Your task to perform on an android device: Is it going to rain tomorrow? Image 0: 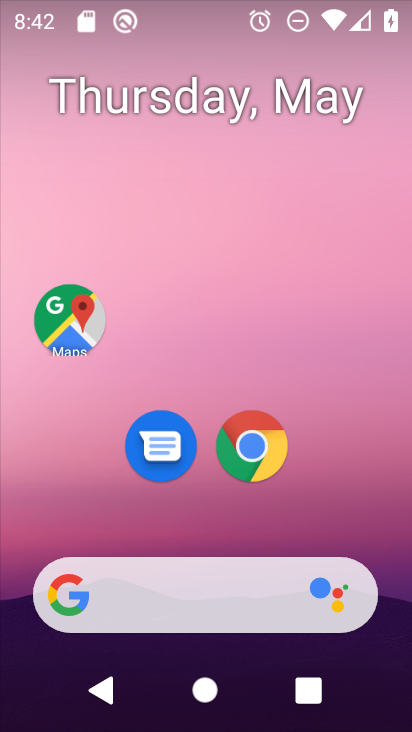
Step 0: drag from (386, 501) to (352, 120)
Your task to perform on an android device: Is it going to rain tomorrow? Image 1: 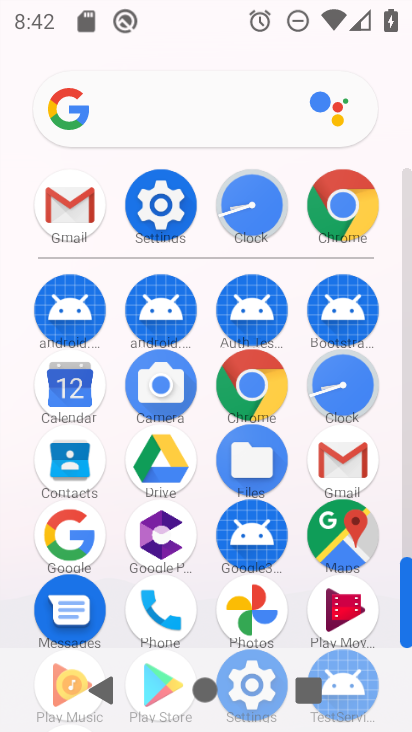
Step 1: click (355, 204)
Your task to perform on an android device: Is it going to rain tomorrow? Image 2: 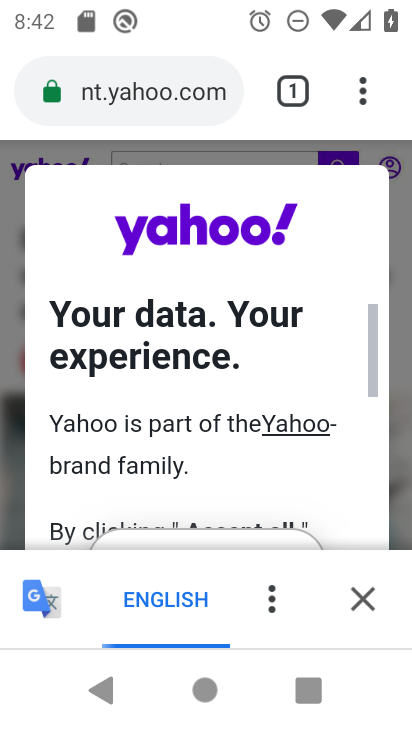
Step 2: click (366, 610)
Your task to perform on an android device: Is it going to rain tomorrow? Image 3: 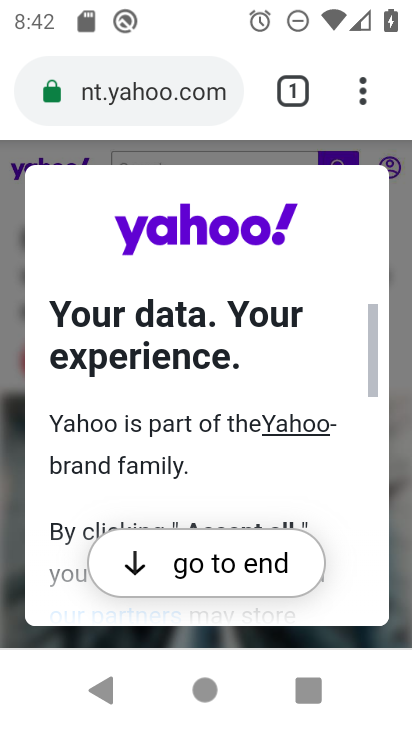
Step 3: click (250, 580)
Your task to perform on an android device: Is it going to rain tomorrow? Image 4: 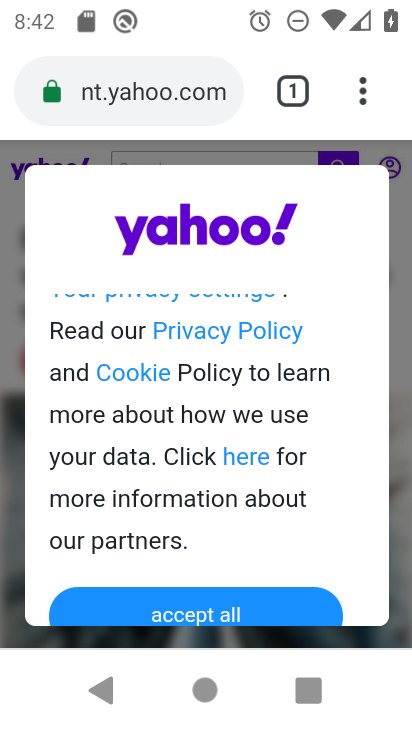
Step 4: click (242, 608)
Your task to perform on an android device: Is it going to rain tomorrow? Image 5: 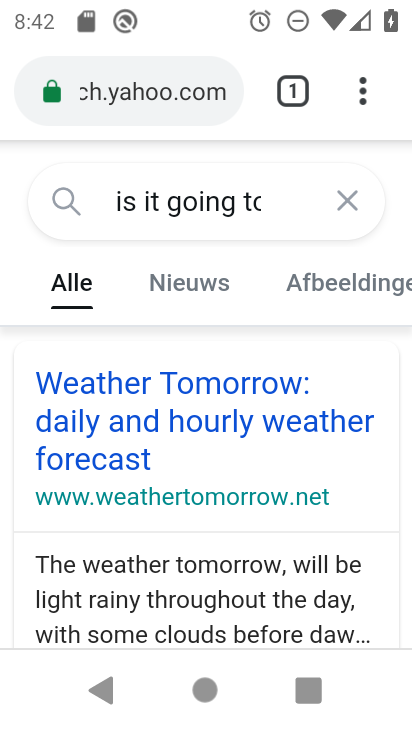
Step 5: click (196, 101)
Your task to perform on an android device: Is it going to rain tomorrow? Image 6: 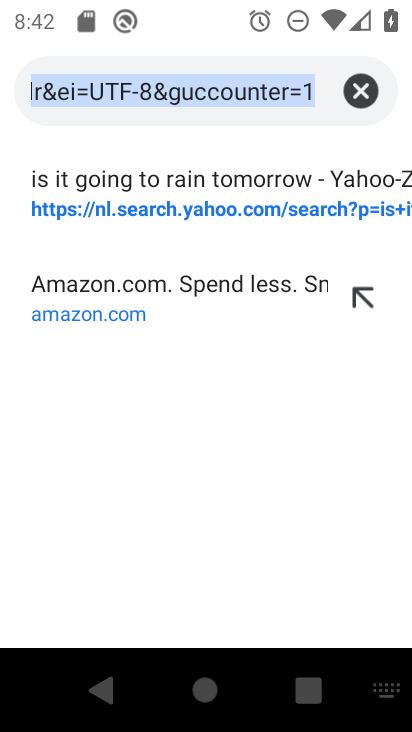
Step 6: click (360, 96)
Your task to perform on an android device: Is it going to rain tomorrow? Image 7: 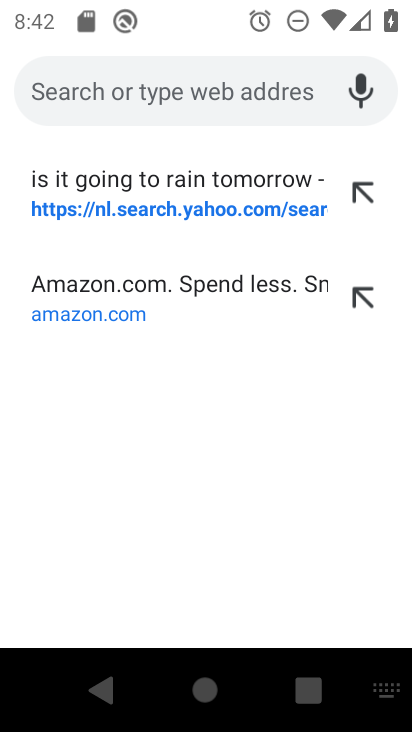
Step 7: type "is it going to rain tomorrow"
Your task to perform on an android device: Is it going to rain tomorrow? Image 8: 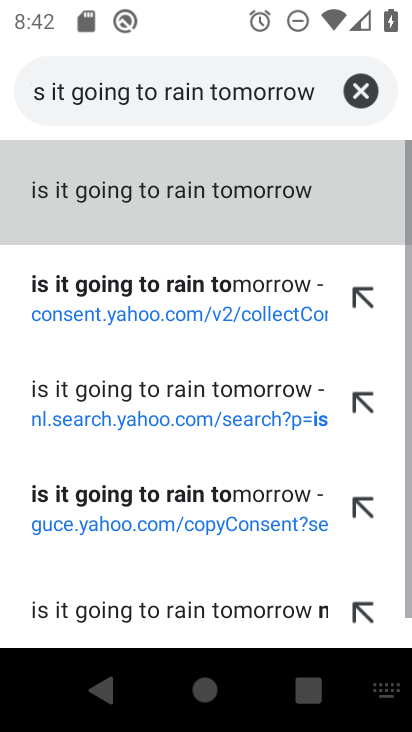
Step 8: click (254, 184)
Your task to perform on an android device: Is it going to rain tomorrow? Image 9: 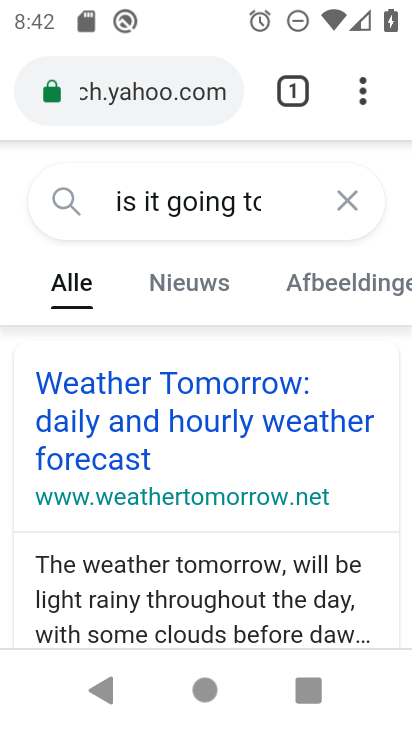
Step 9: drag from (221, 611) to (188, 268)
Your task to perform on an android device: Is it going to rain tomorrow? Image 10: 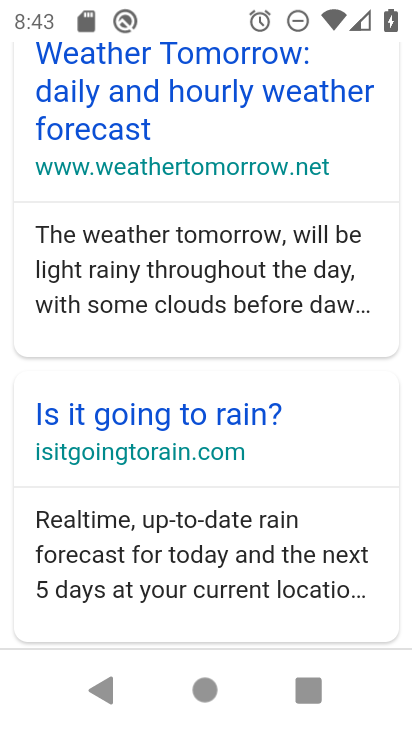
Step 10: drag from (181, 271) to (171, 374)
Your task to perform on an android device: Is it going to rain tomorrow? Image 11: 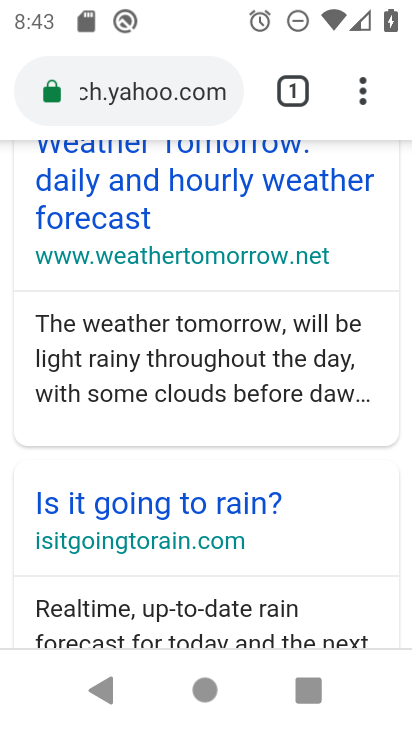
Step 11: click (154, 183)
Your task to perform on an android device: Is it going to rain tomorrow? Image 12: 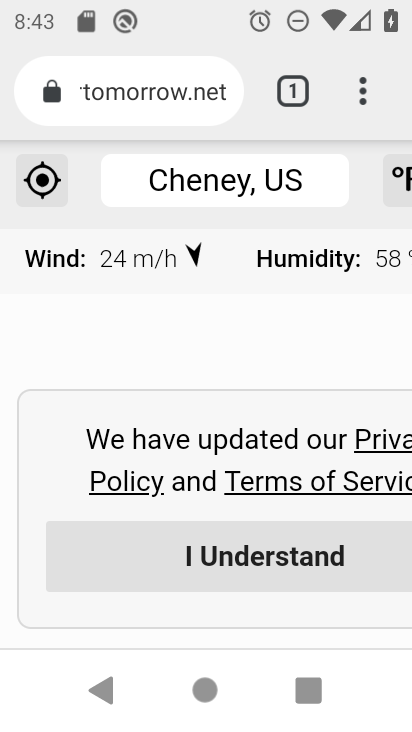
Step 12: task complete